Your task to perform on an android device: Open calendar and show me the fourth week of next month Image 0: 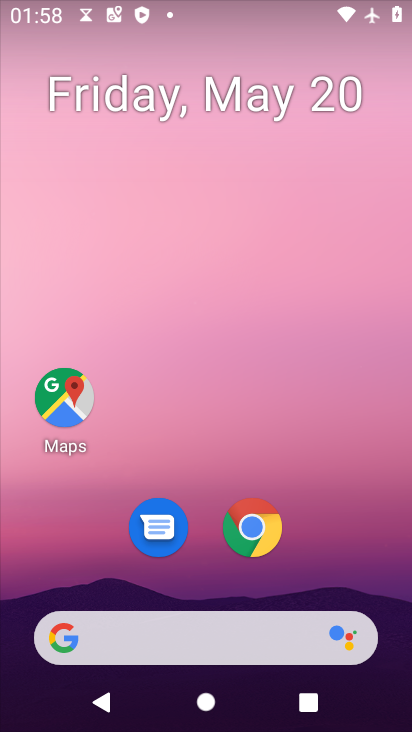
Step 0: press home button
Your task to perform on an android device: Open calendar and show me the fourth week of next month Image 1: 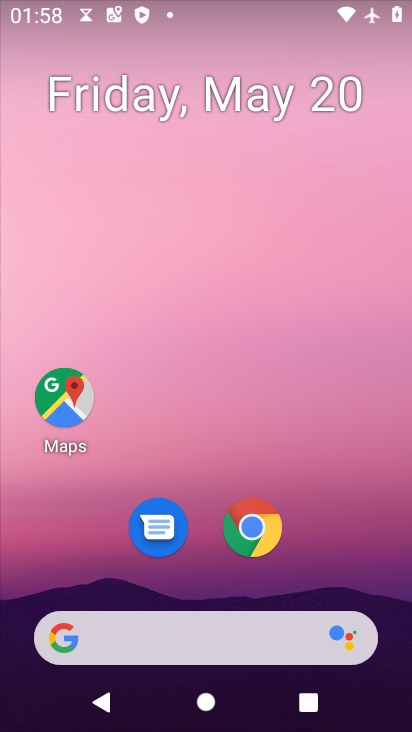
Step 1: drag from (198, 642) to (346, 107)
Your task to perform on an android device: Open calendar and show me the fourth week of next month Image 2: 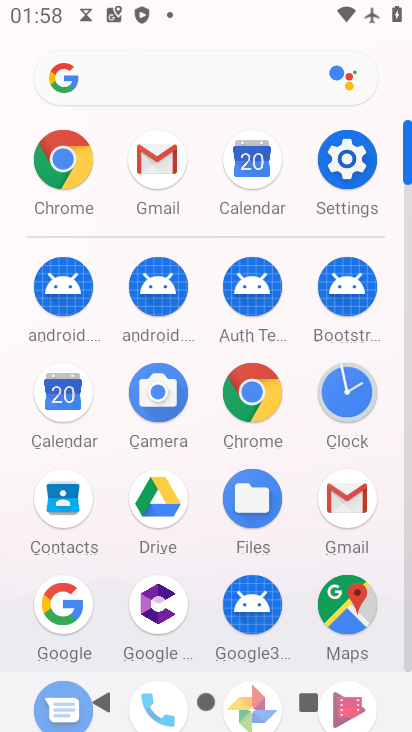
Step 2: click (256, 178)
Your task to perform on an android device: Open calendar and show me the fourth week of next month Image 3: 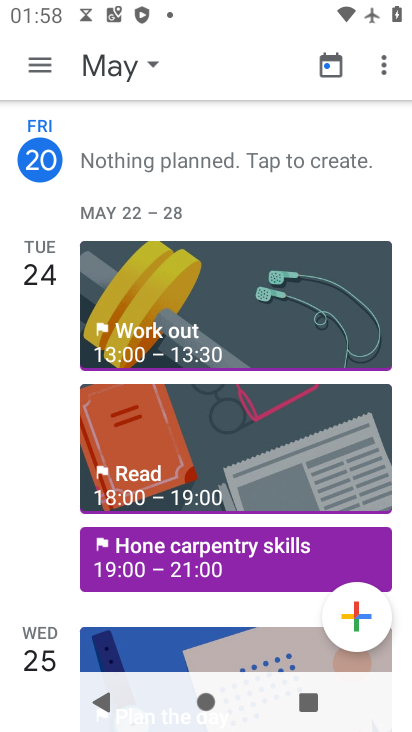
Step 3: click (109, 59)
Your task to perform on an android device: Open calendar and show me the fourth week of next month Image 4: 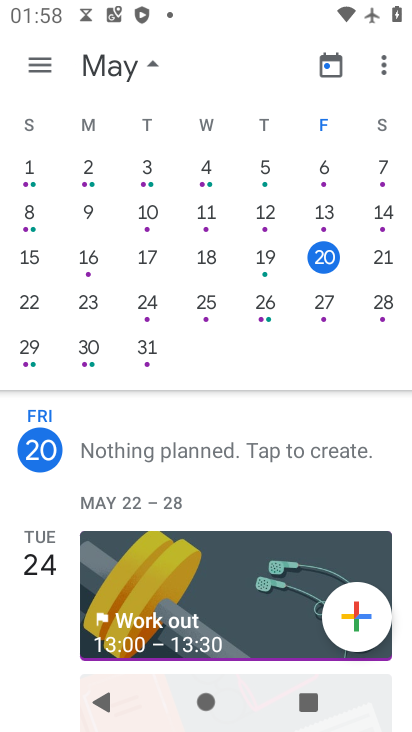
Step 4: drag from (361, 221) to (89, 239)
Your task to perform on an android device: Open calendar and show me the fourth week of next month Image 5: 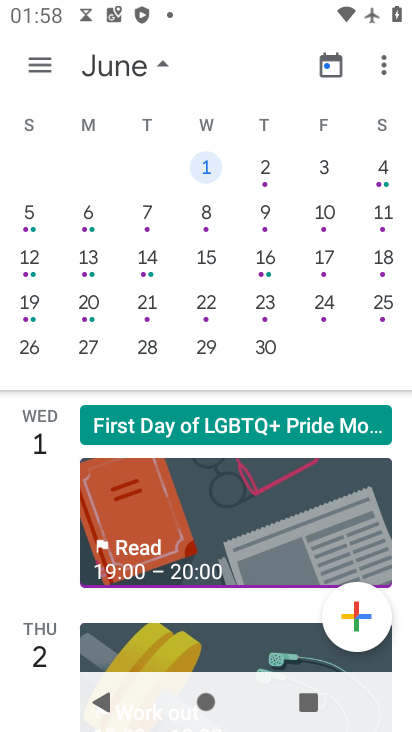
Step 5: click (36, 303)
Your task to perform on an android device: Open calendar and show me the fourth week of next month Image 6: 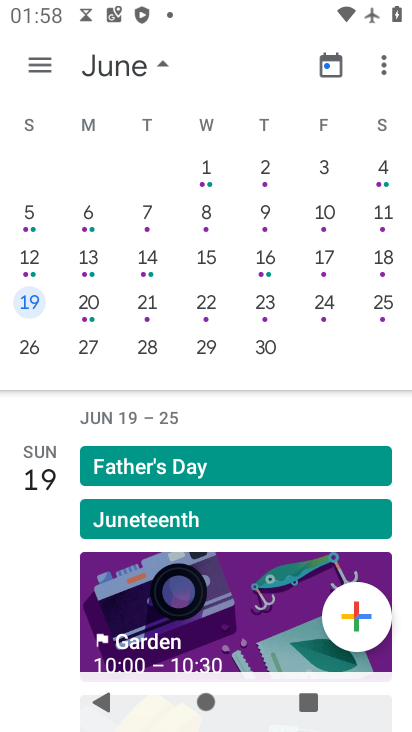
Step 6: click (44, 63)
Your task to perform on an android device: Open calendar and show me the fourth week of next month Image 7: 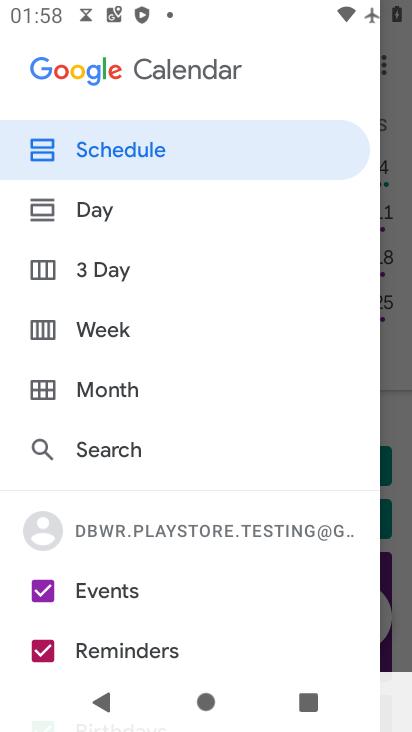
Step 7: click (109, 339)
Your task to perform on an android device: Open calendar and show me the fourth week of next month Image 8: 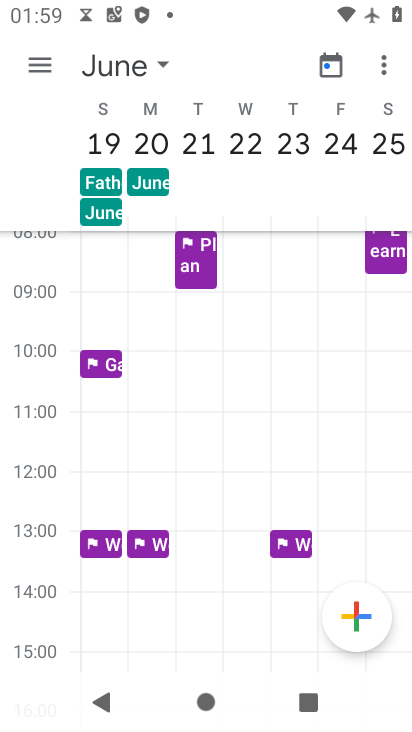
Step 8: task complete